Your task to perform on an android device: change timer sound Image 0: 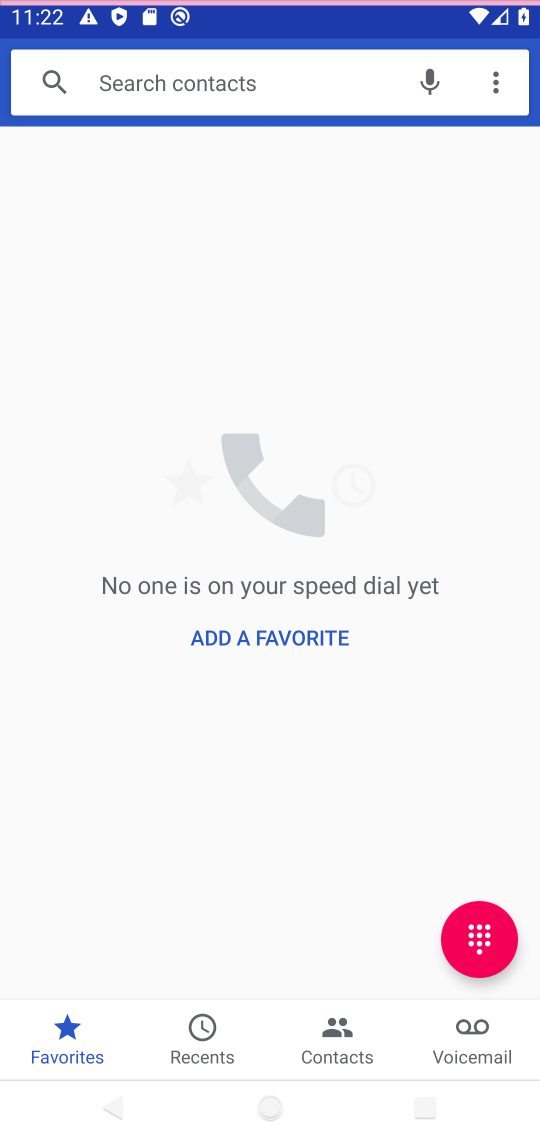
Step 0: press home button
Your task to perform on an android device: change timer sound Image 1: 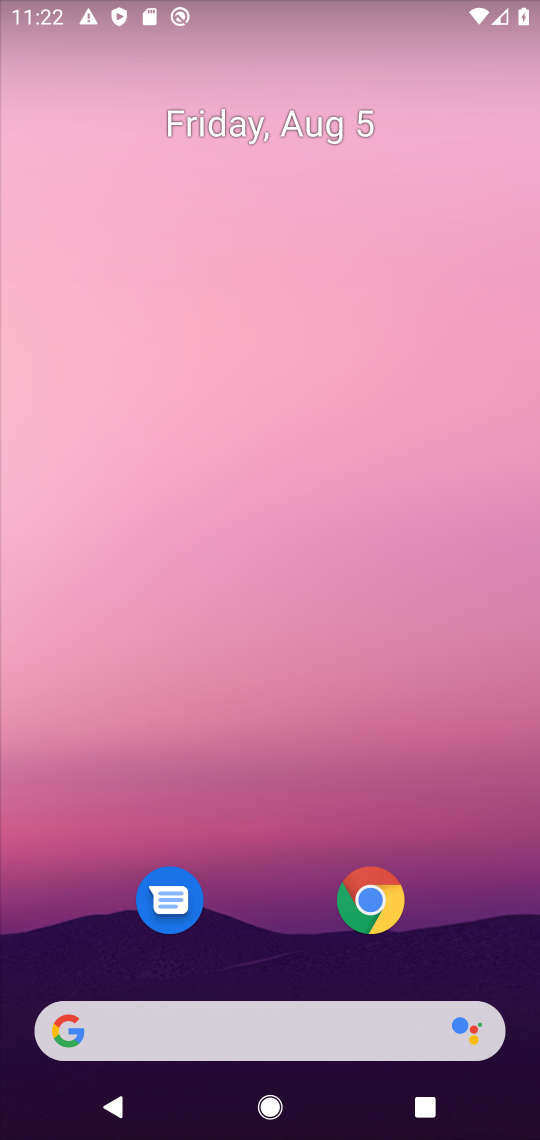
Step 1: drag from (269, 938) to (271, 55)
Your task to perform on an android device: change timer sound Image 2: 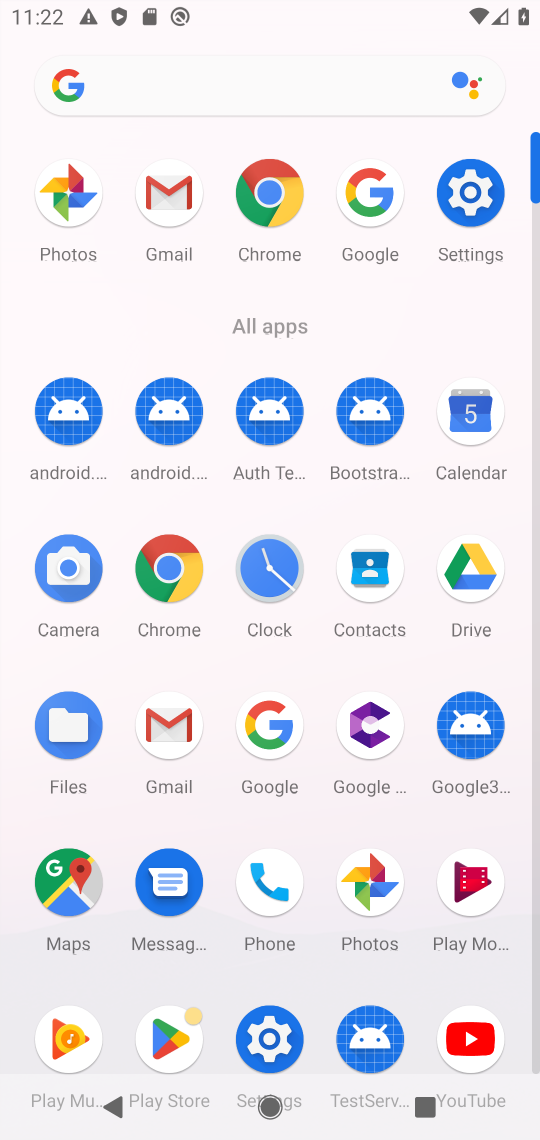
Step 2: click (271, 573)
Your task to perform on an android device: change timer sound Image 3: 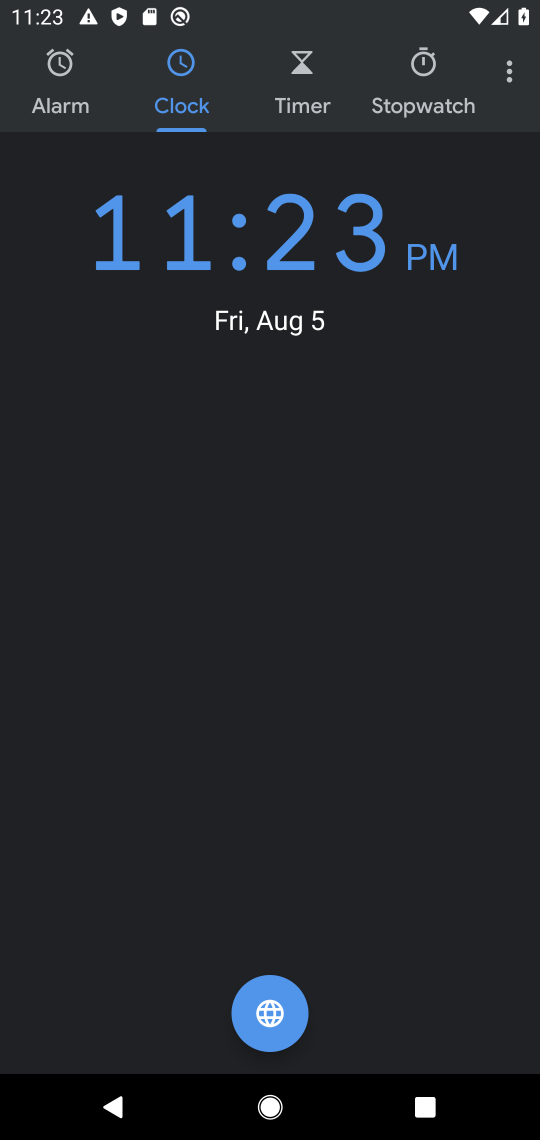
Step 3: click (511, 80)
Your task to perform on an android device: change timer sound Image 4: 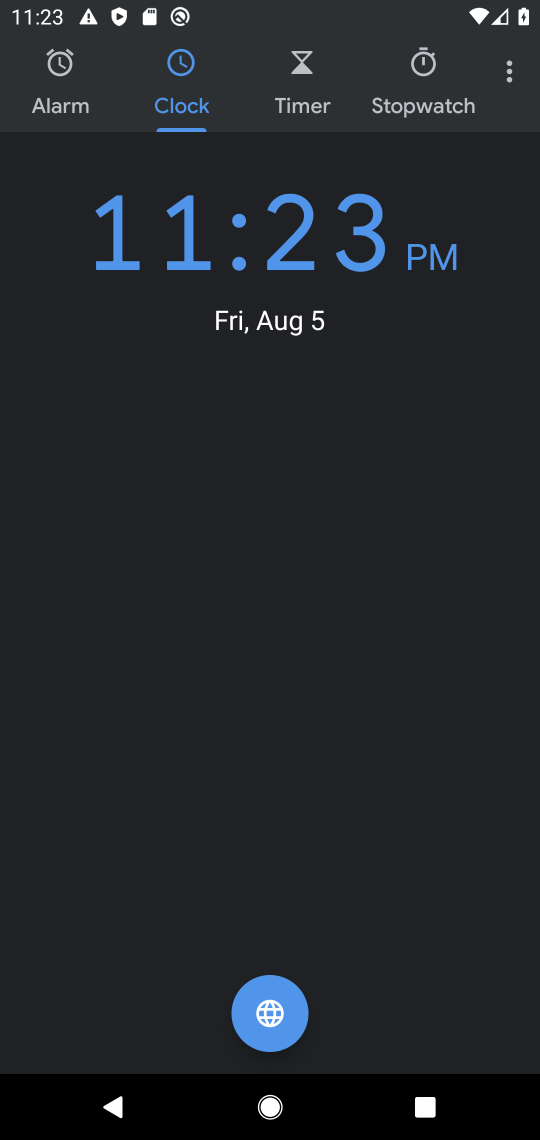
Step 4: click (510, 68)
Your task to perform on an android device: change timer sound Image 5: 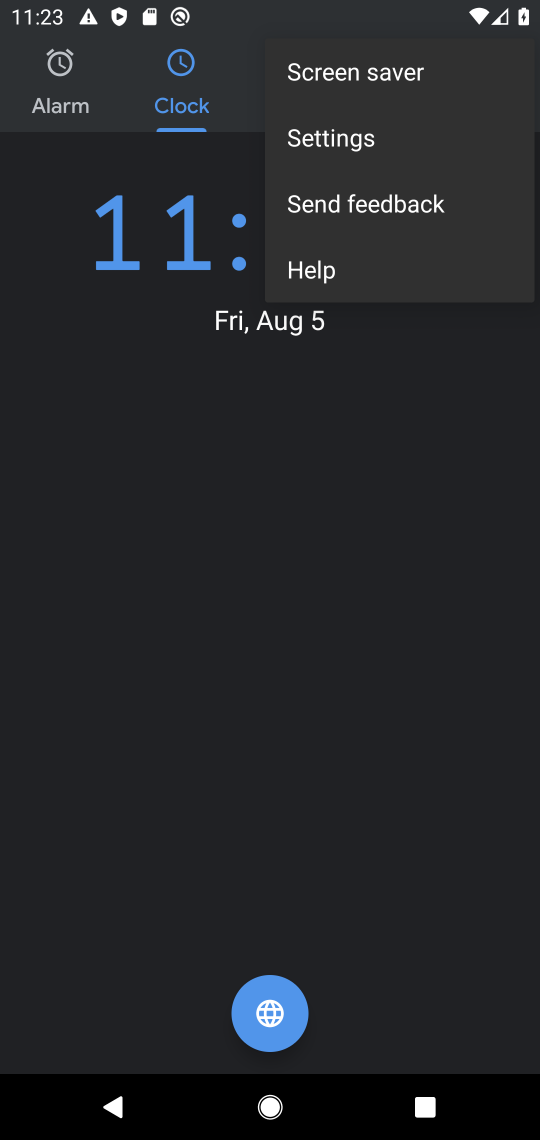
Step 5: click (364, 131)
Your task to perform on an android device: change timer sound Image 6: 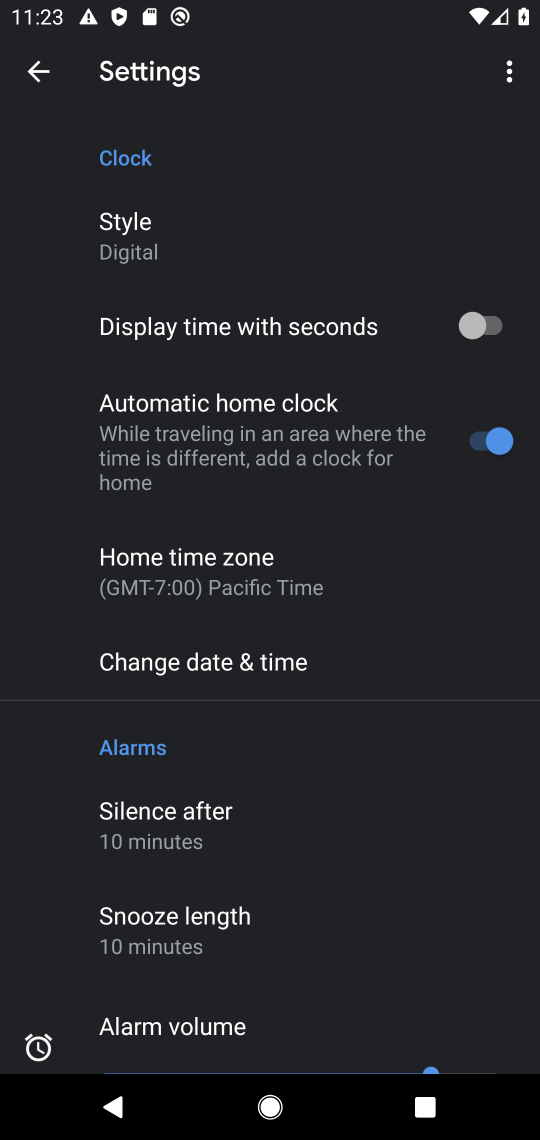
Step 6: drag from (185, 991) to (201, 565)
Your task to perform on an android device: change timer sound Image 7: 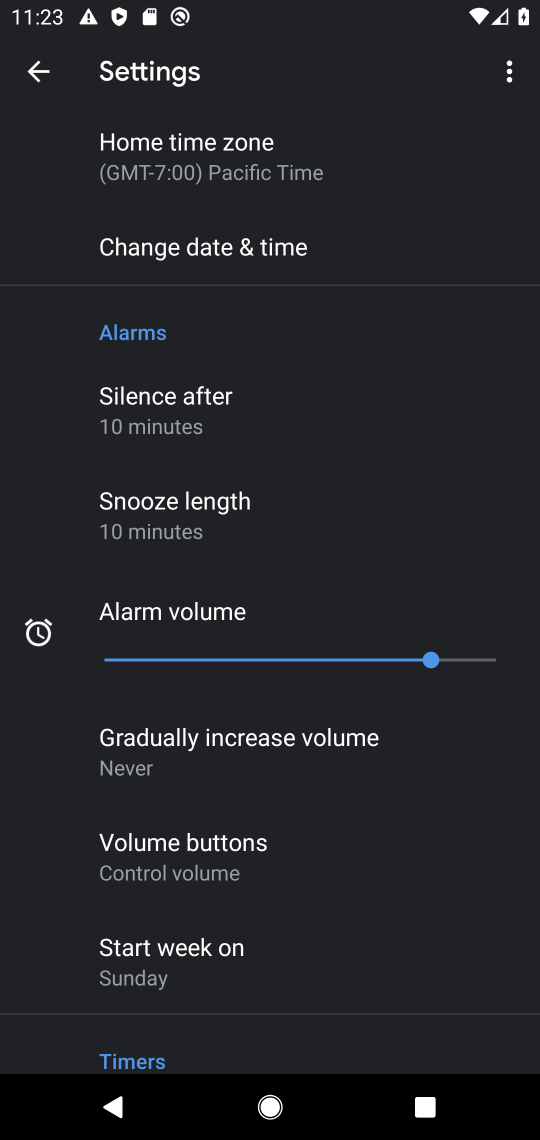
Step 7: drag from (180, 1009) to (174, 577)
Your task to perform on an android device: change timer sound Image 8: 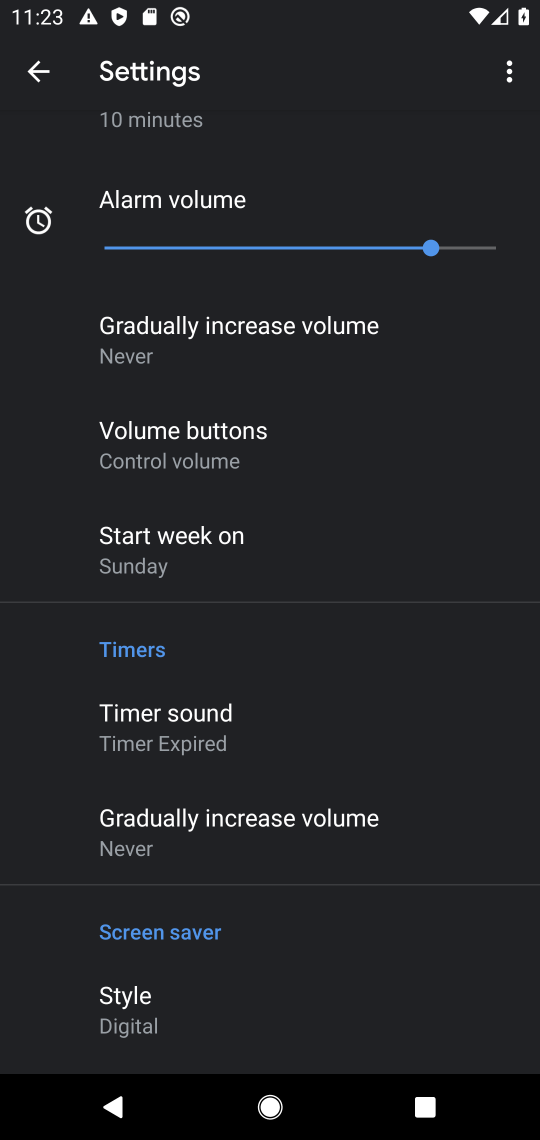
Step 8: click (174, 725)
Your task to perform on an android device: change timer sound Image 9: 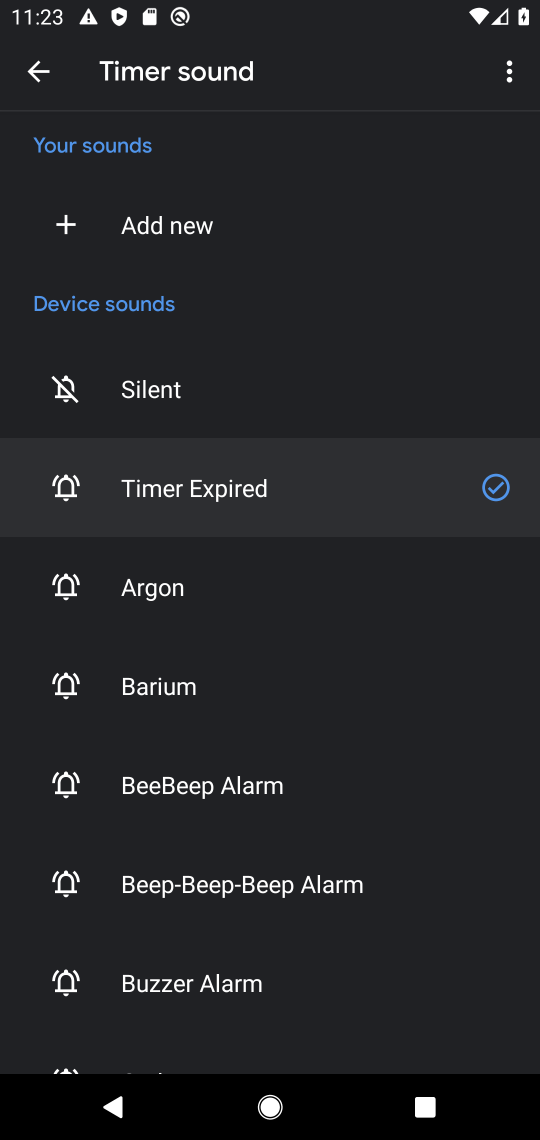
Step 9: click (167, 785)
Your task to perform on an android device: change timer sound Image 10: 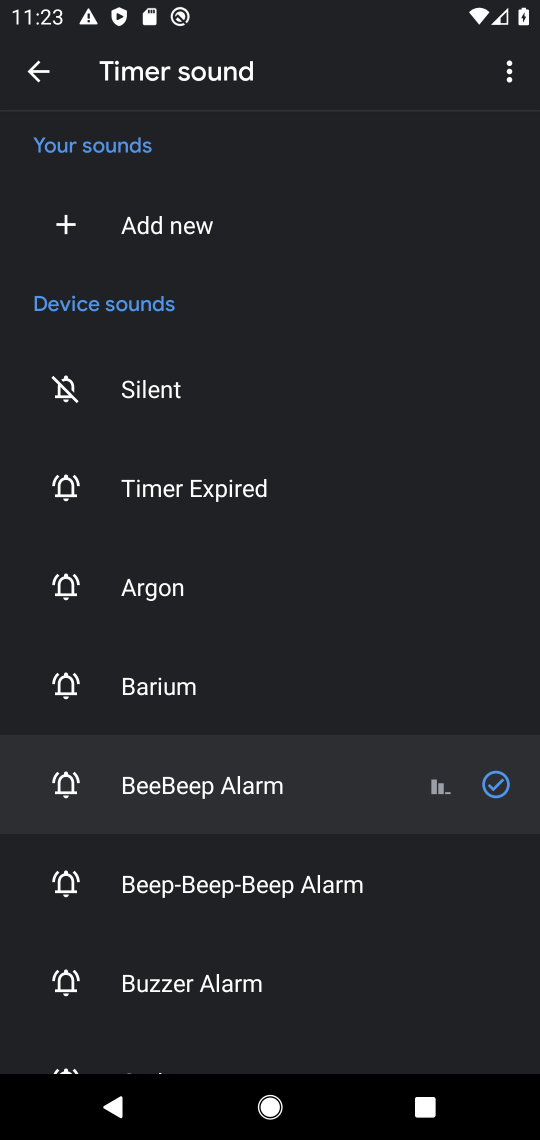
Step 10: task complete